Your task to perform on an android device: empty trash in google photos Image 0: 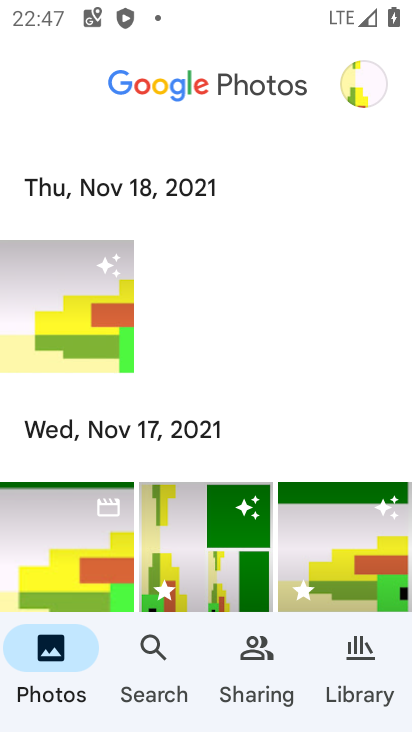
Step 0: press home button
Your task to perform on an android device: empty trash in google photos Image 1: 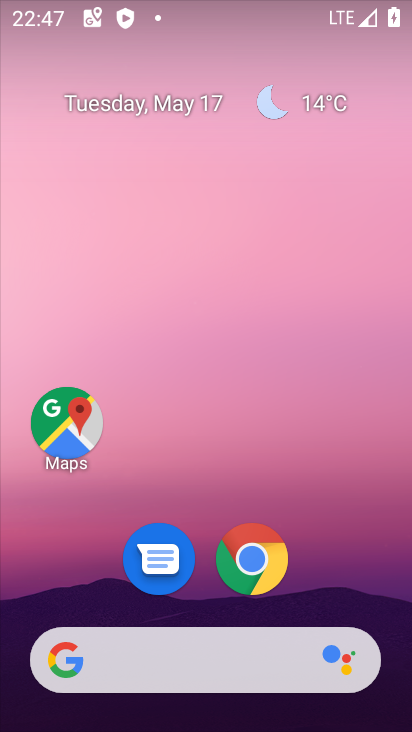
Step 1: drag from (337, 546) to (341, 152)
Your task to perform on an android device: empty trash in google photos Image 2: 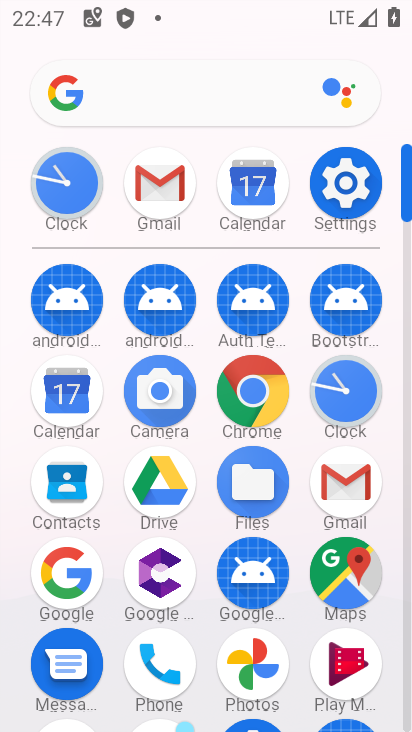
Step 2: click (265, 665)
Your task to perform on an android device: empty trash in google photos Image 3: 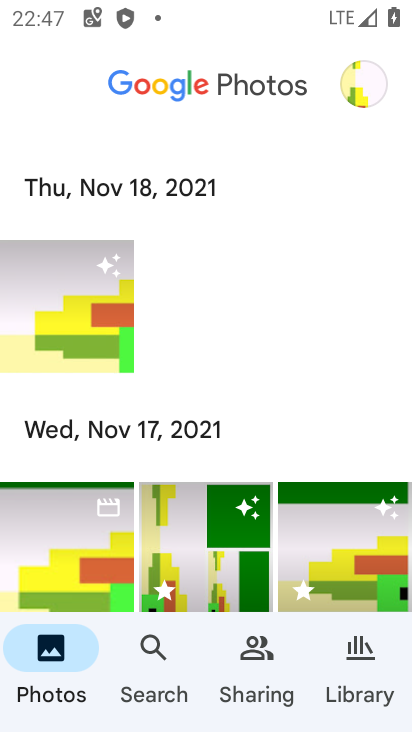
Step 3: drag from (357, 83) to (325, 410)
Your task to perform on an android device: empty trash in google photos Image 4: 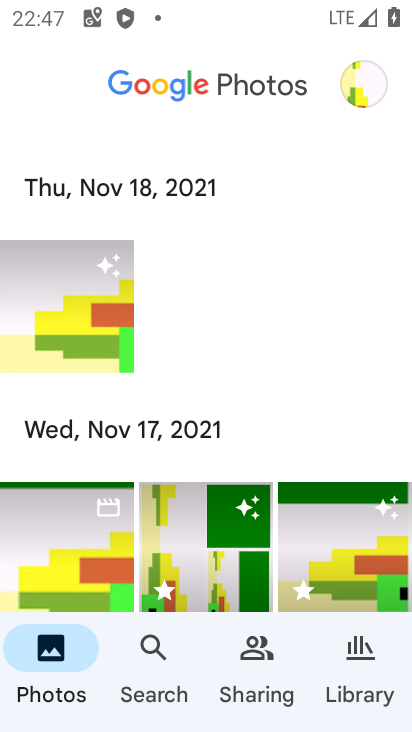
Step 4: click (374, 661)
Your task to perform on an android device: empty trash in google photos Image 5: 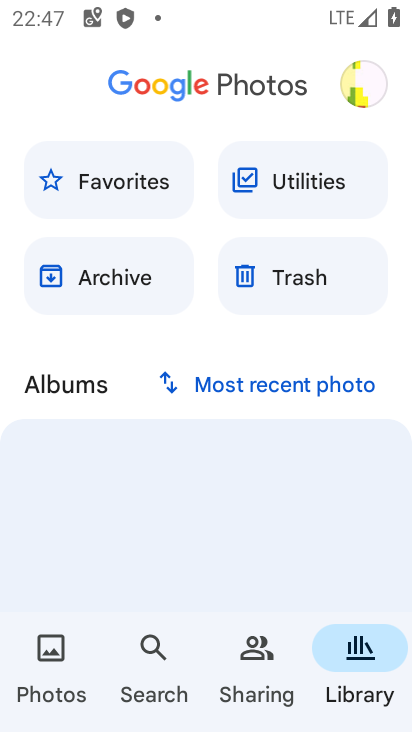
Step 5: click (304, 274)
Your task to perform on an android device: empty trash in google photos Image 6: 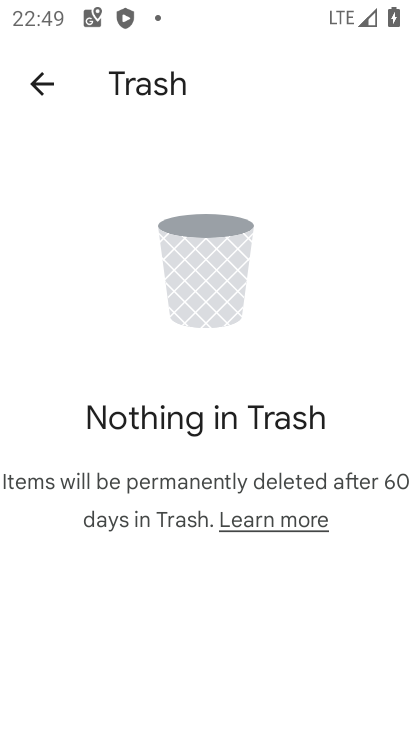
Step 6: task complete